Your task to perform on an android device: turn on bluetooth scan Image 0: 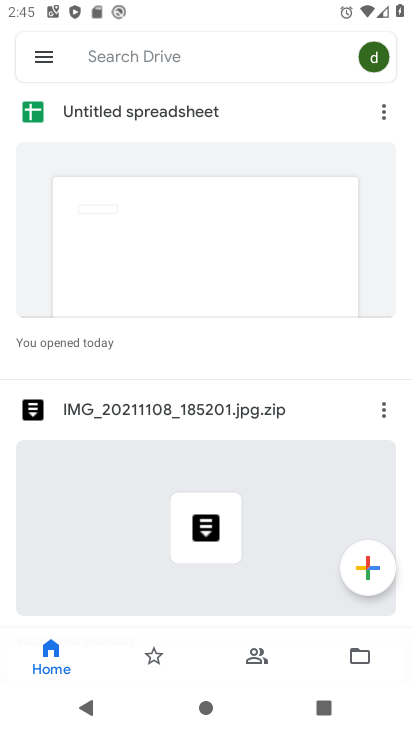
Step 0: press home button
Your task to perform on an android device: turn on bluetooth scan Image 1: 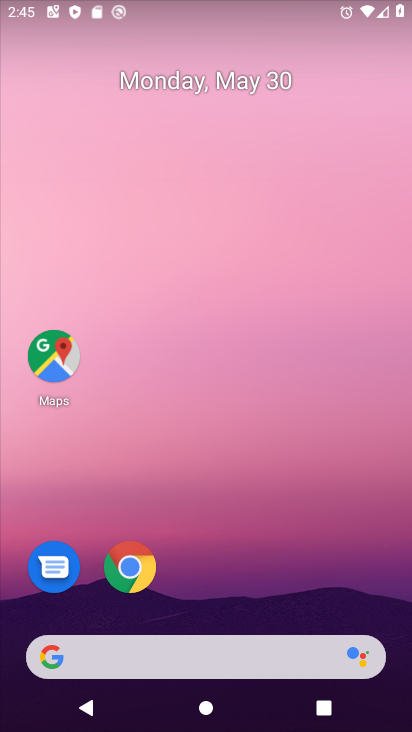
Step 1: drag from (220, 442) to (43, 617)
Your task to perform on an android device: turn on bluetooth scan Image 2: 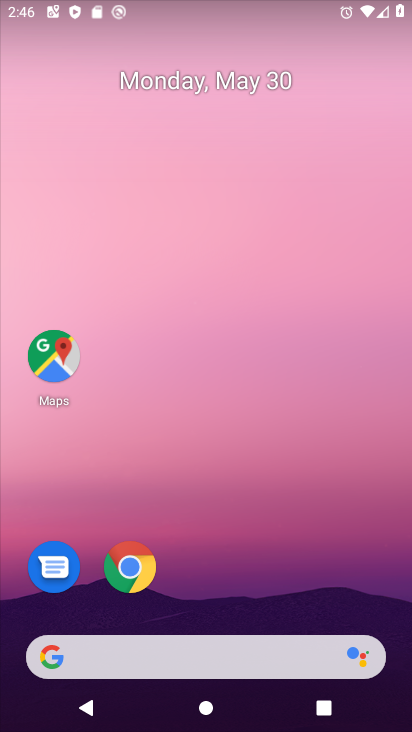
Step 2: drag from (197, 610) to (239, 276)
Your task to perform on an android device: turn on bluetooth scan Image 3: 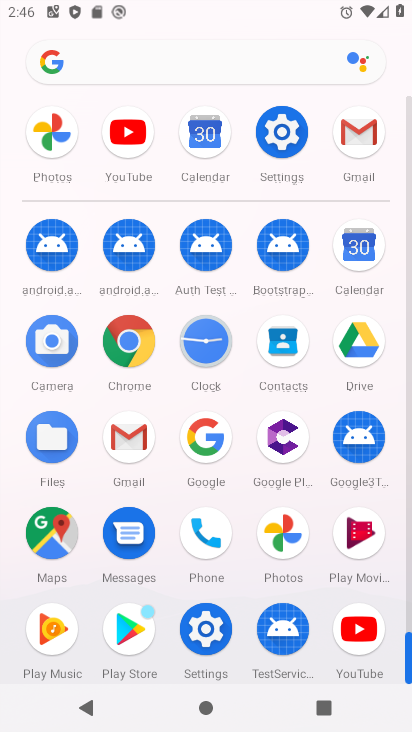
Step 3: click (268, 146)
Your task to perform on an android device: turn on bluetooth scan Image 4: 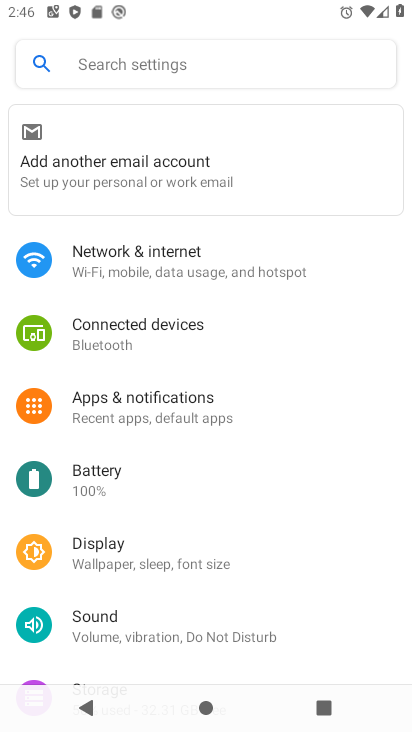
Step 4: drag from (129, 607) to (225, 122)
Your task to perform on an android device: turn on bluetooth scan Image 5: 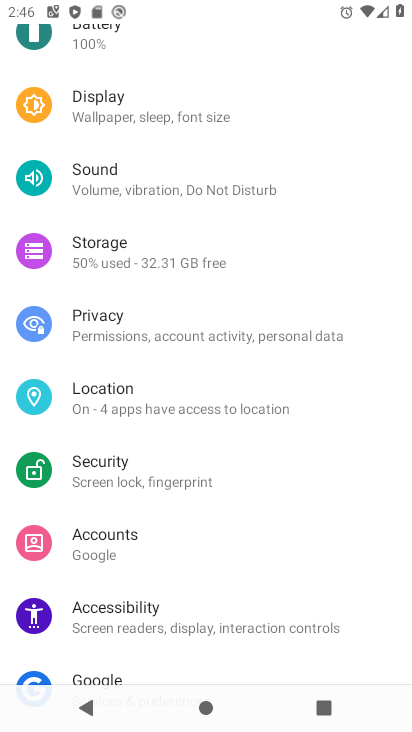
Step 5: click (176, 409)
Your task to perform on an android device: turn on bluetooth scan Image 6: 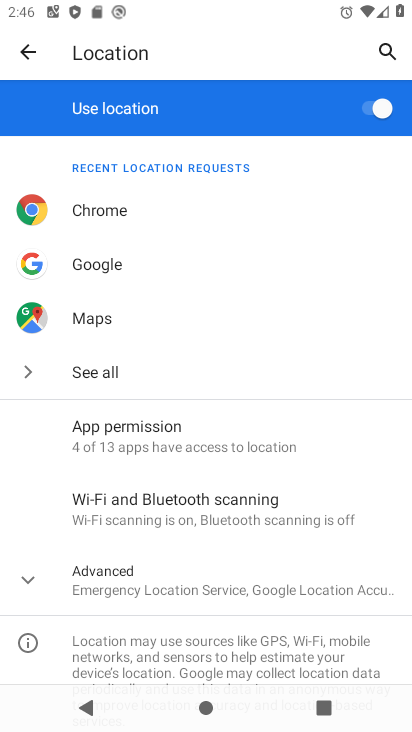
Step 6: click (204, 524)
Your task to perform on an android device: turn on bluetooth scan Image 7: 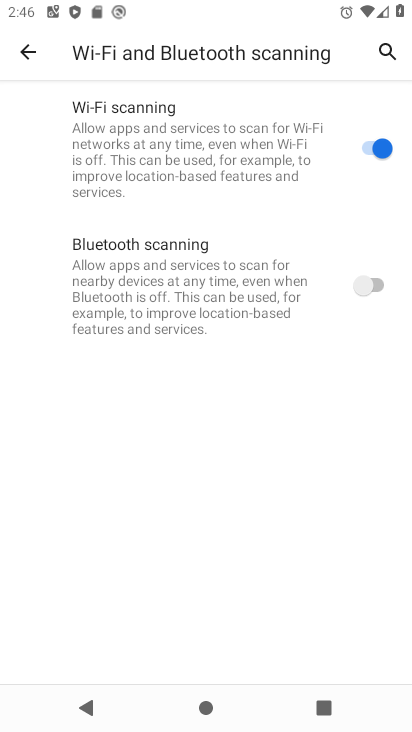
Step 7: click (381, 283)
Your task to perform on an android device: turn on bluetooth scan Image 8: 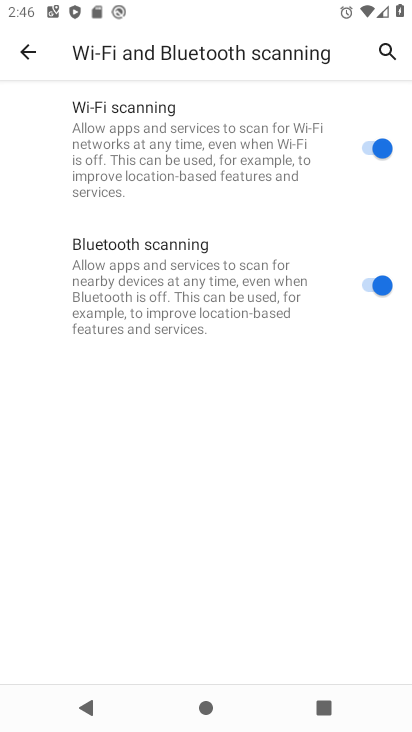
Step 8: task complete